Your task to perform on an android device: turn on improve location accuracy Image 0: 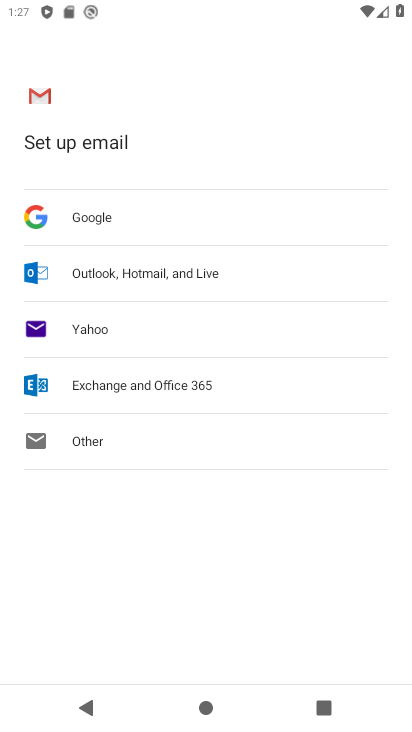
Step 0: press home button
Your task to perform on an android device: turn on improve location accuracy Image 1: 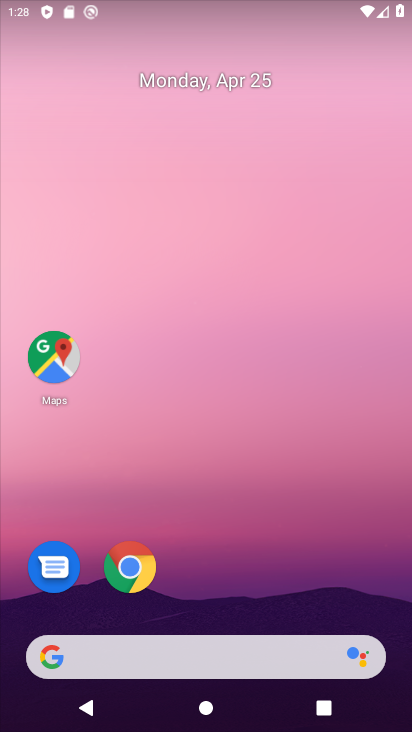
Step 1: drag from (358, 583) to (270, 13)
Your task to perform on an android device: turn on improve location accuracy Image 2: 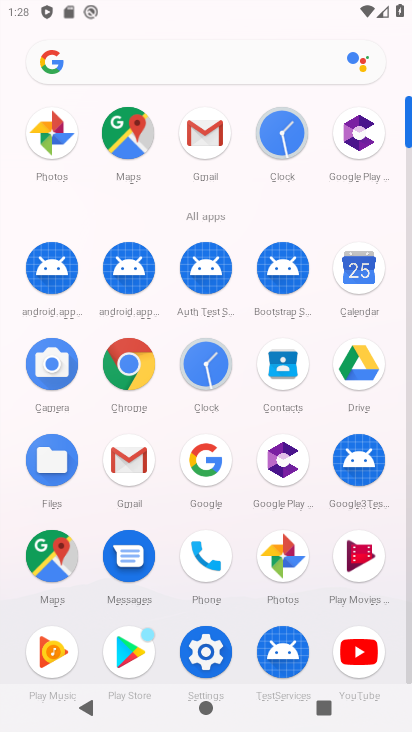
Step 2: click (411, 670)
Your task to perform on an android device: turn on improve location accuracy Image 3: 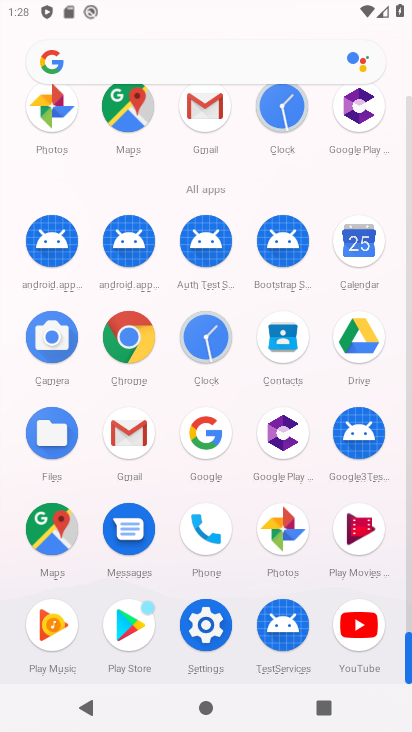
Step 3: click (207, 625)
Your task to perform on an android device: turn on improve location accuracy Image 4: 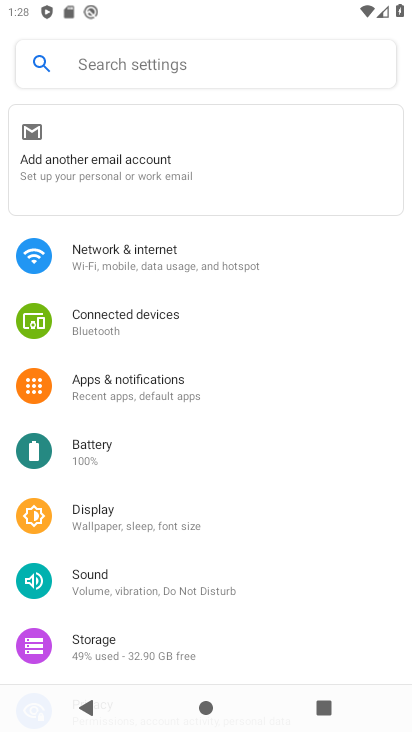
Step 4: drag from (263, 574) to (267, 280)
Your task to perform on an android device: turn on improve location accuracy Image 5: 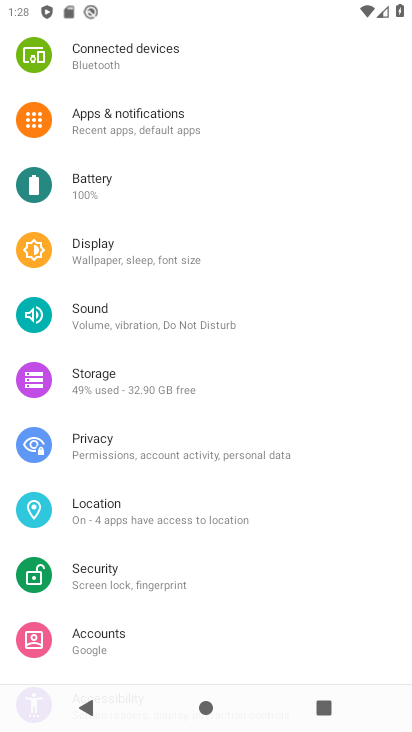
Step 5: click (91, 494)
Your task to perform on an android device: turn on improve location accuracy Image 6: 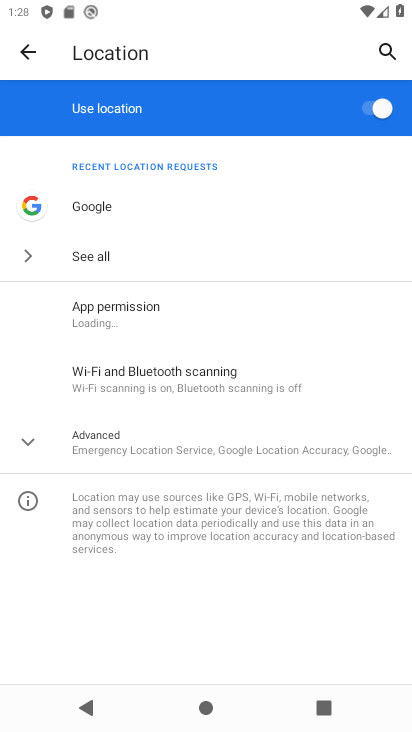
Step 6: click (27, 440)
Your task to perform on an android device: turn on improve location accuracy Image 7: 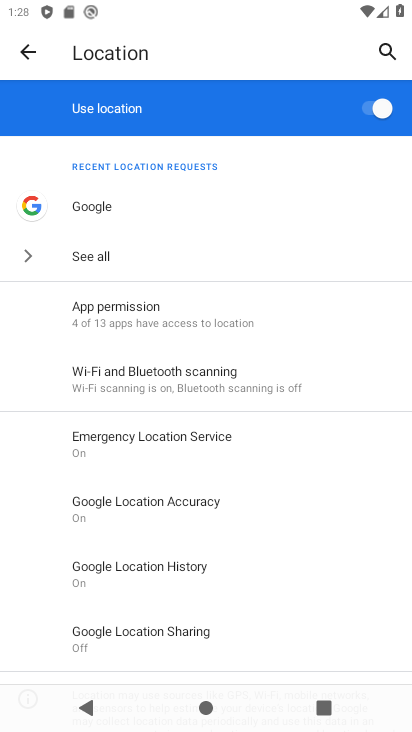
Step 7: click (109, 496)
Your task to perform on an android device: turn on improve location accuracy Image 8: 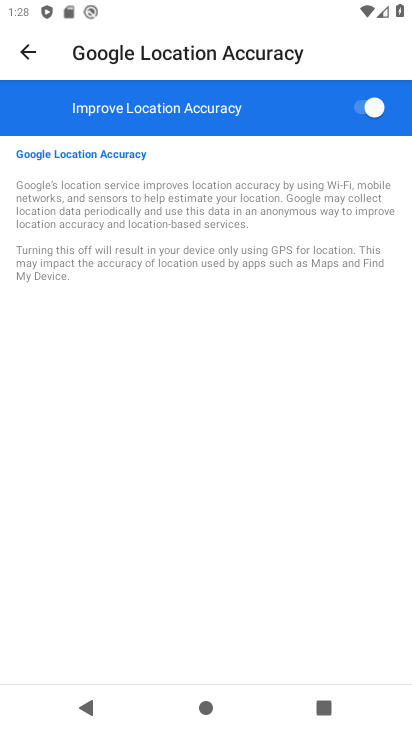
Step 8: task complete